Your task to perform on an android device: open app "Pinterest" (install if not already installed), go to login, and select forgot password Image 0: 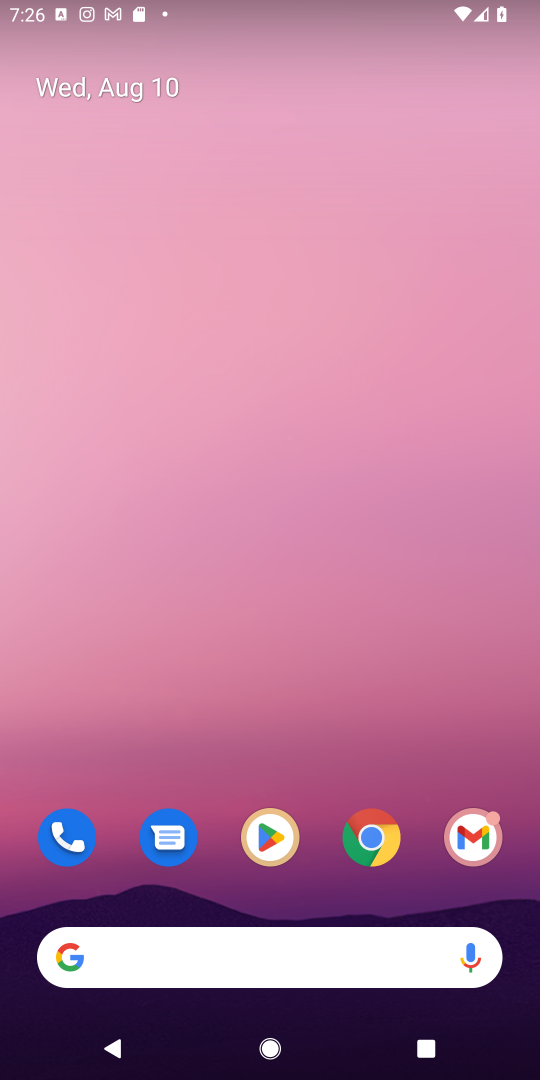
Step 0: click (263, 840)
Your task to perform on an android device: open app "Pinterest" (install if not already installed), go to login, and select forgot password Image 1: 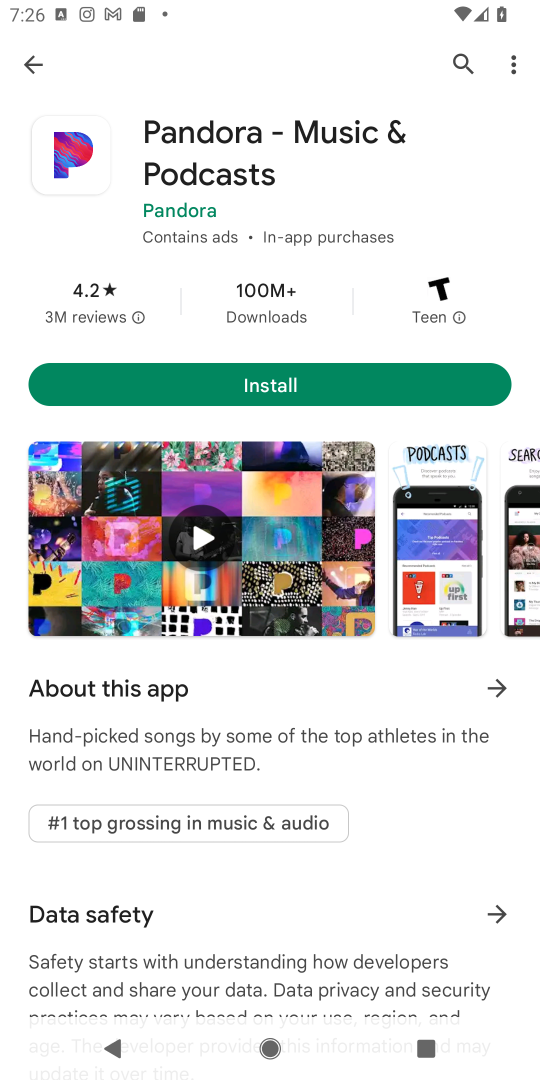
Step 1: click (461, 61)
Your task to perform on an android device: open app "Pinterest" (install if not already installed), go to login, and select forgot password Image 2: 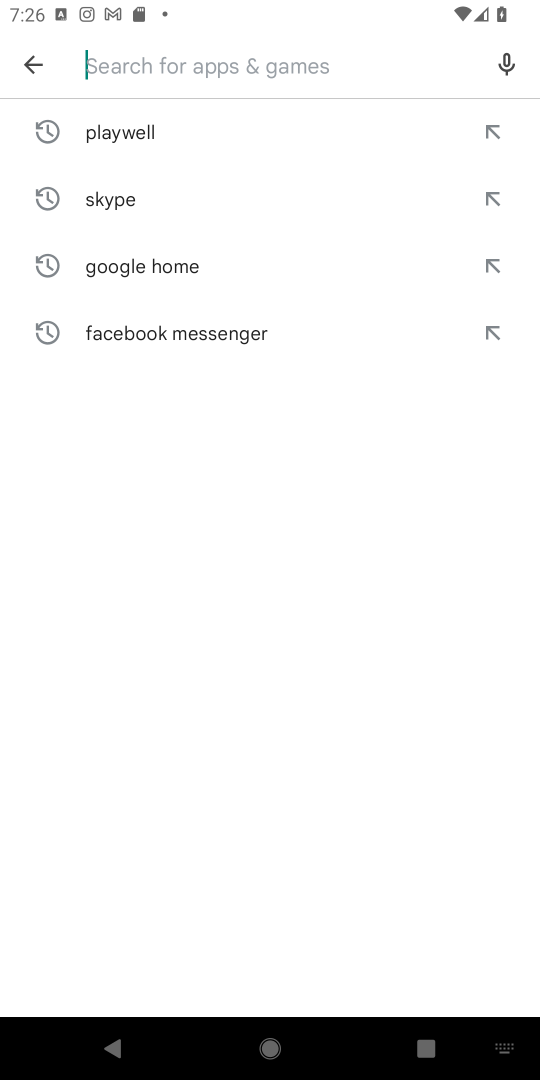
Step 2: type "Pinterest"
Your task to perform on an android device: open app "Pinterest" (install if not already installed), go to login, and select forgot password Image 3: 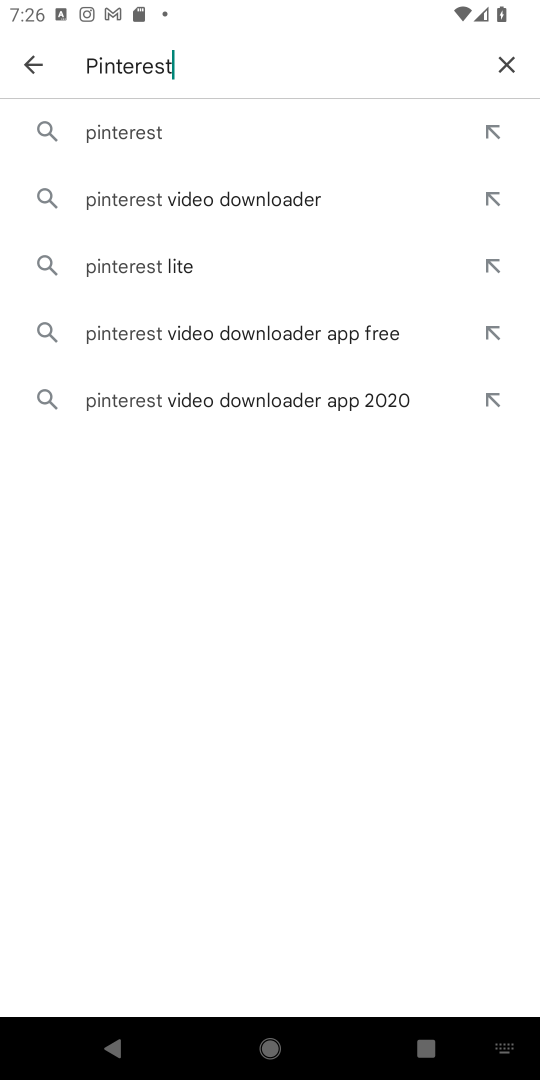
Step 3: click (157, 138)
Your task to perform on an android device: open app "Pinterest" (install if not already installed), go to login, and select forgot password Image 4: 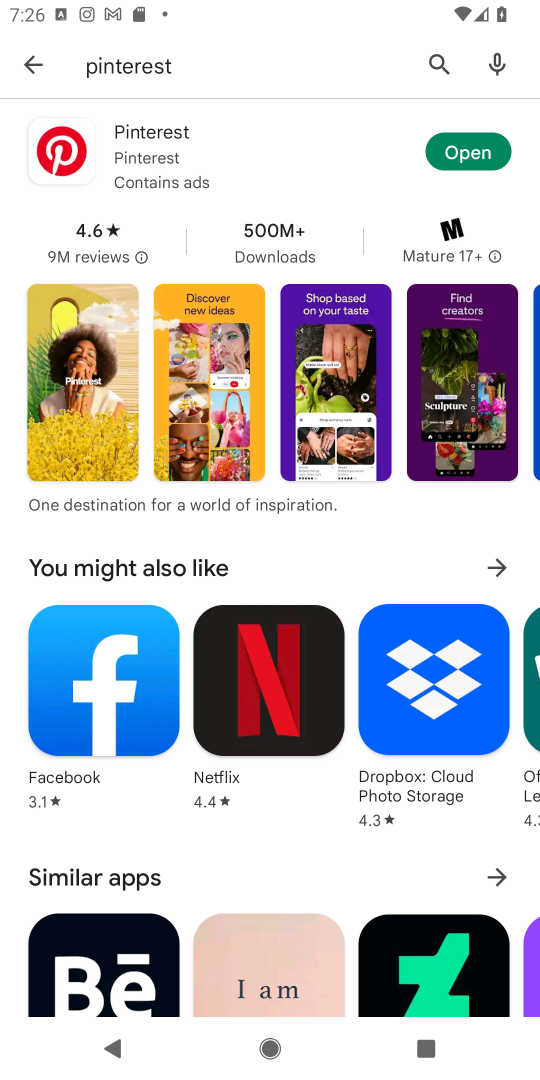
Step 4: click (449, 152)
Your task to perform on an android device: open app "Pinterest" (install if not already installed), go to login, and select forgot password Image 5: 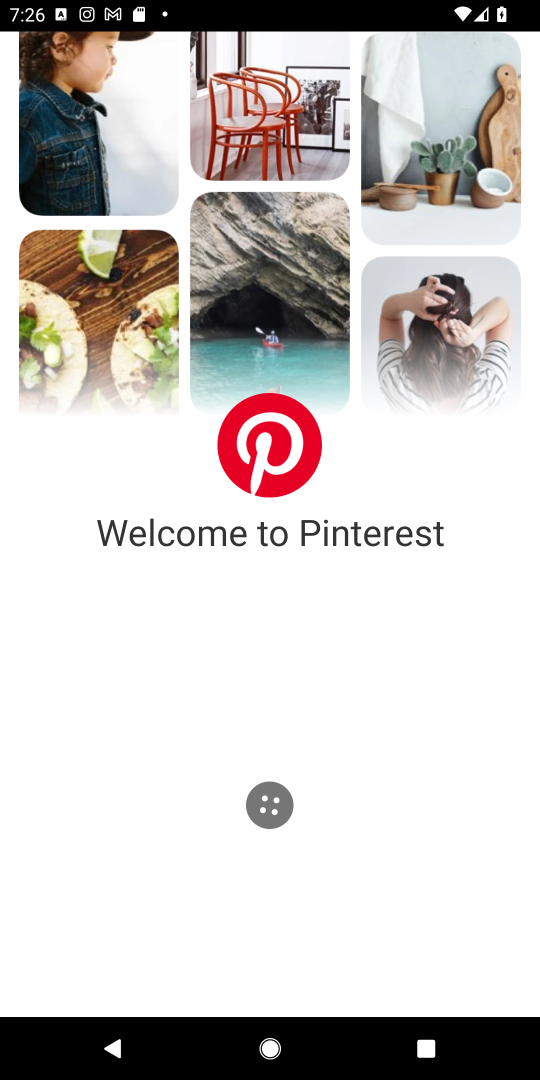
Step 5: task complete